Your task to perform on an android device: Open Reddit Image 0: 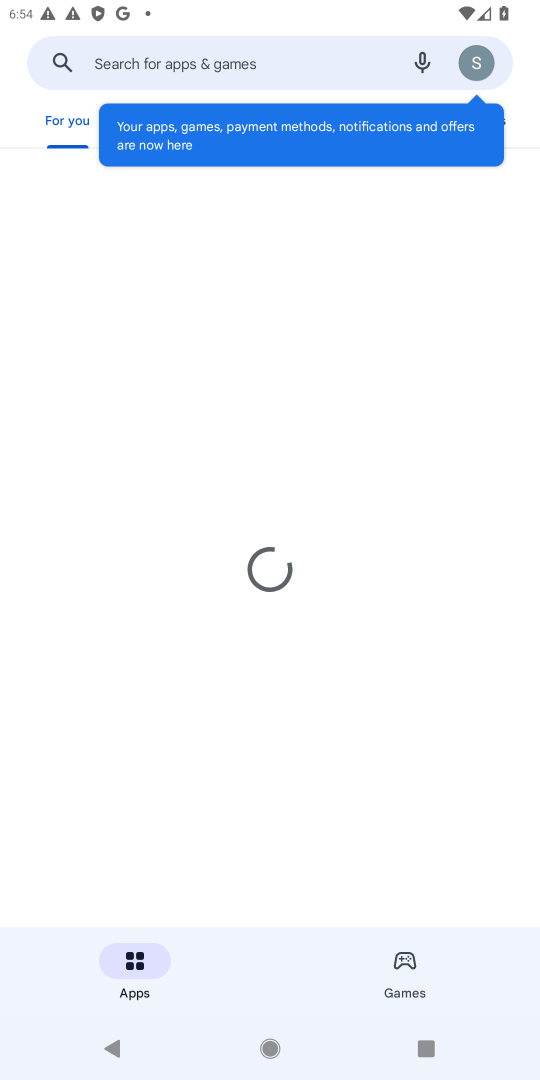
Step 0: press home button
Your task to perform on an android device: Open Reddit Image 1: 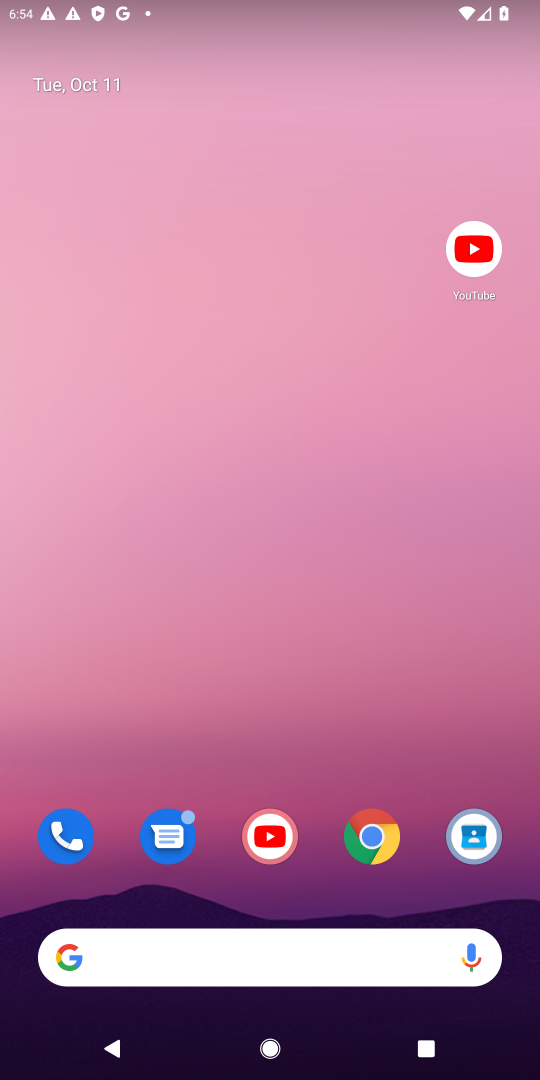
Step 1: drag from (312, 790) to (376, 315)
Your task to perform on an android device: Open Reddit Image 2: 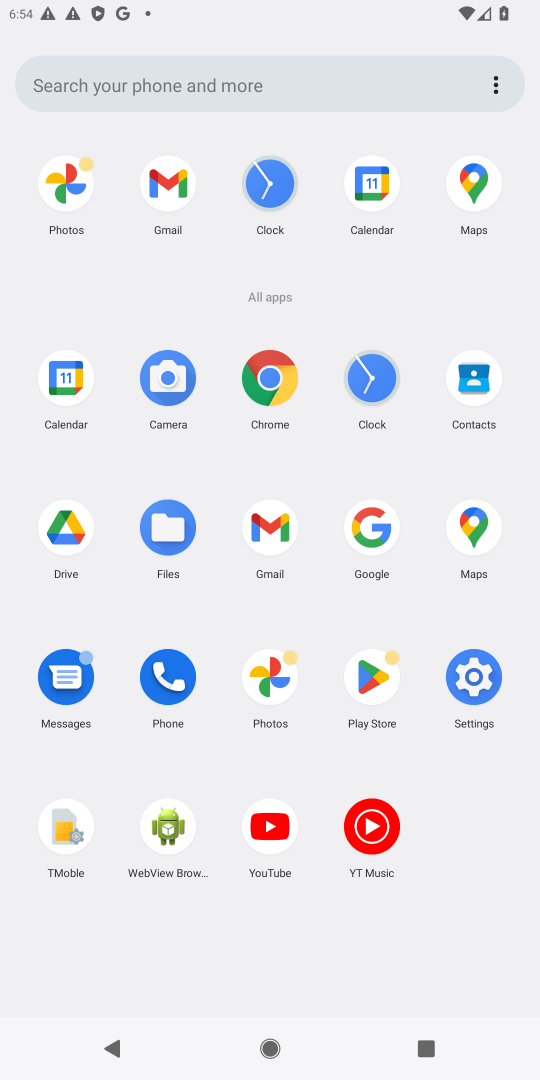
Step 2: click (376, 679)
Your task to perform on an android device: Open Reddit Image 3: 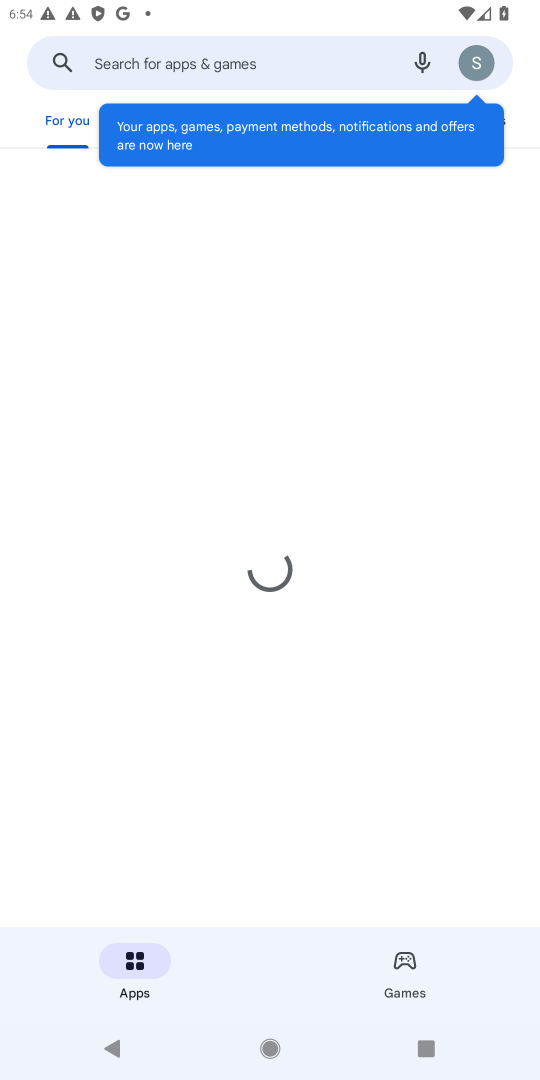
Step 3: click (193, 59)
Your task to perform on an android device: Open Reddit Image 4: 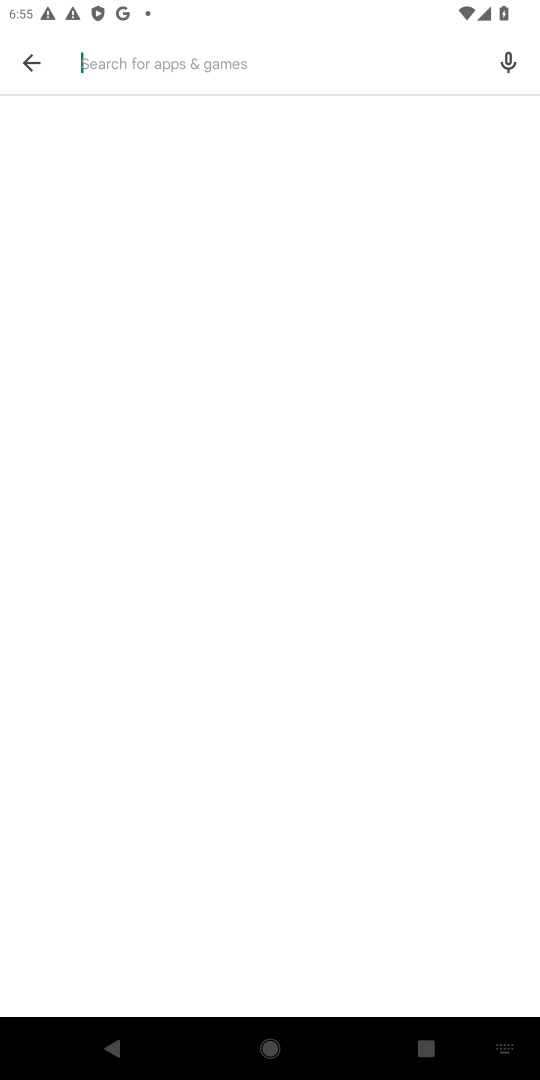
Step 4: type "Reddit"
Your task to perform on an android device: Open Reddit Image 5: 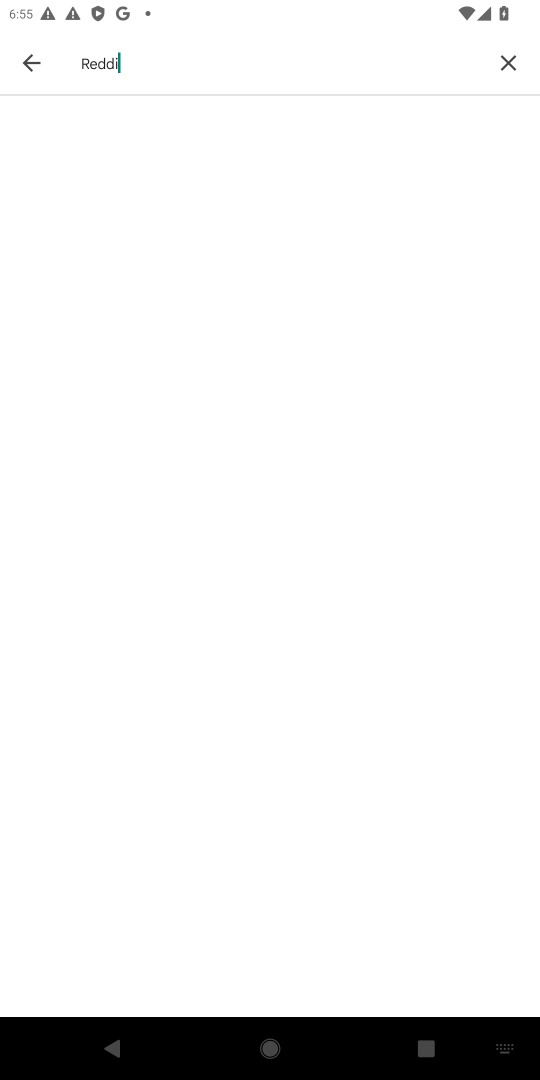
Step 5: press enter
Your task to perform on an android device: Open Reddit Image 6: 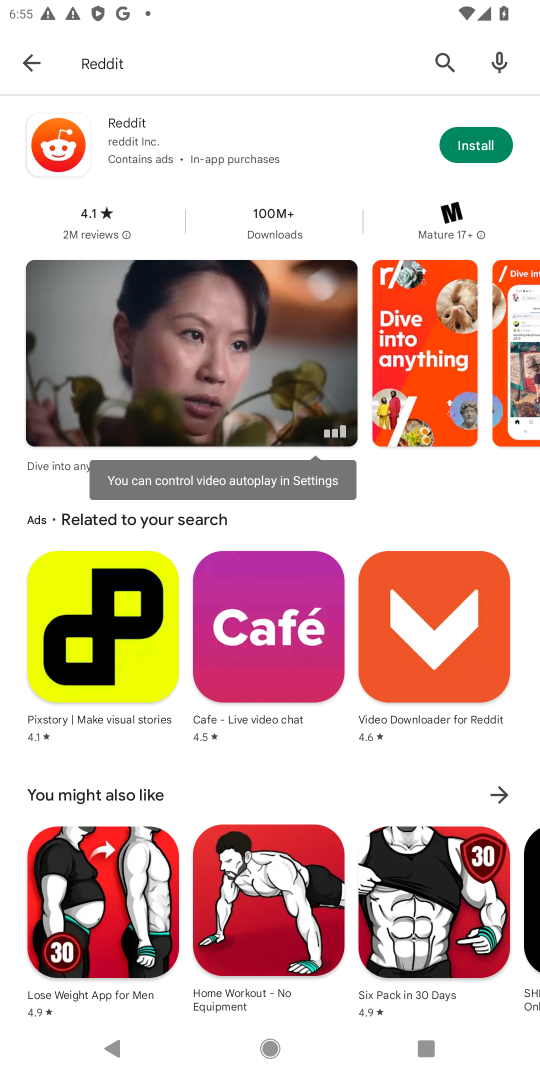
Step 6: task complete